Your task to perform on an android device: Open CNN.com Image 0: 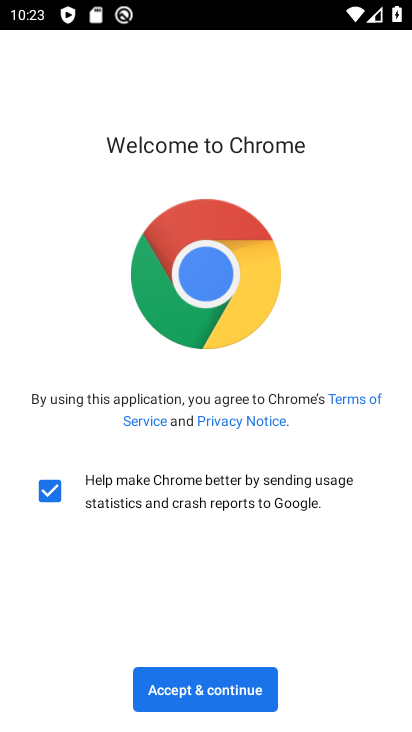
Step 0: click (191, 696)
Your task to perform on an android device: Open CNN.com Image 1: 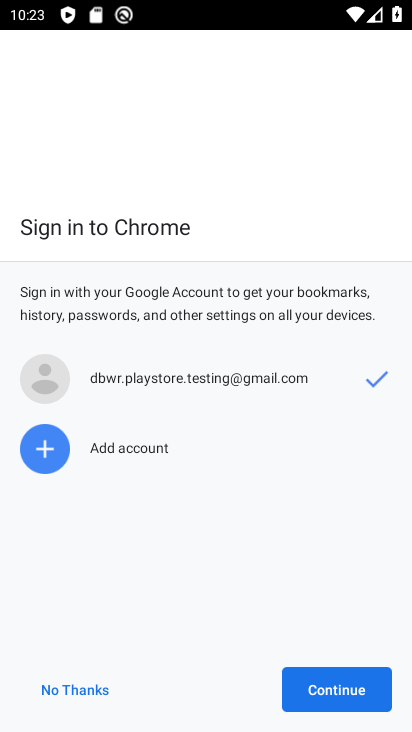
Step 1: click (328, 687)
Your task to perform on an android device: Open CNN.com Image 2: 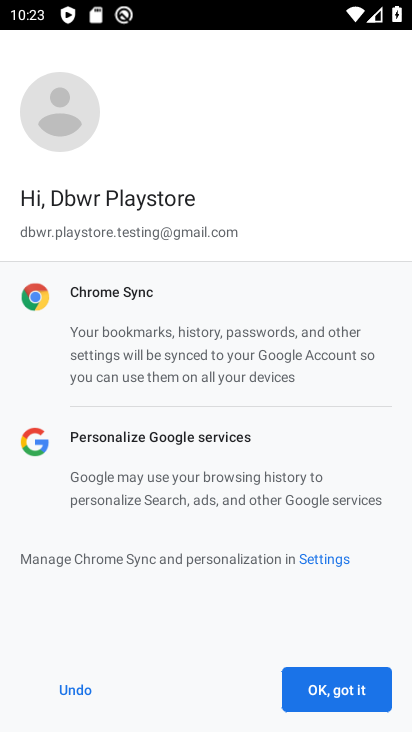
Step 2: click (331, 683)
Your task to perform on an android device: Open CNN.com Image 3: 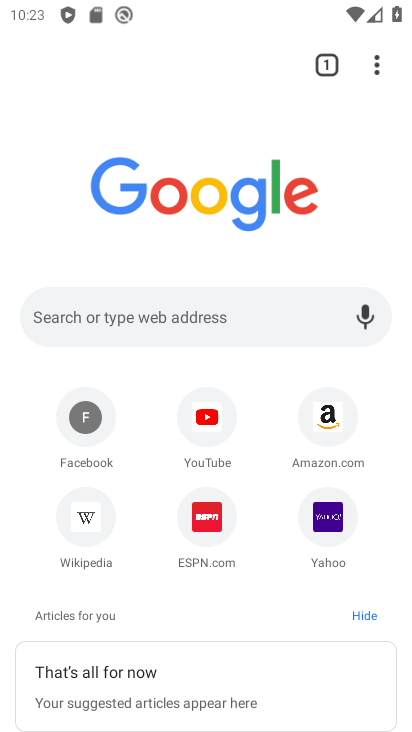
Step 3: click (229, 311)
Your task to perform on an android device: Open CNN.com Image 4: 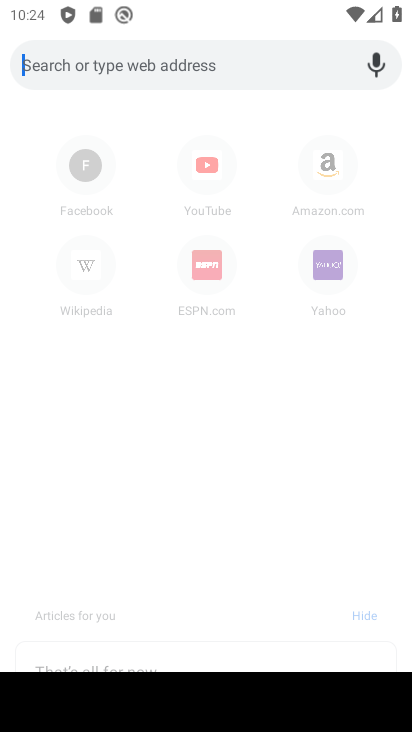
Step 4: type "CNN.com"
Your task to perform on an android device: Open CNN.com Image 5: 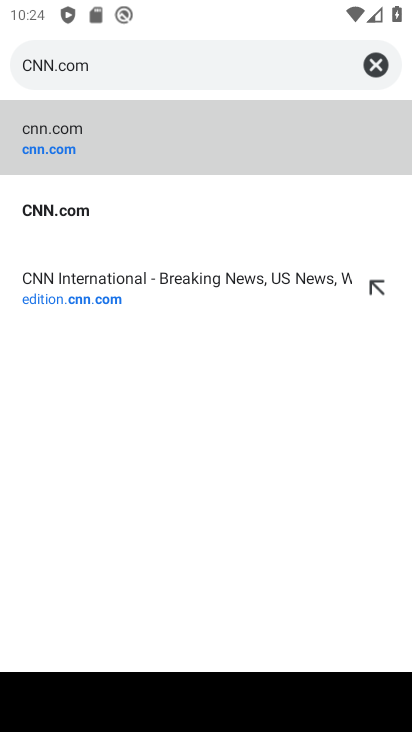
Step 5: click (113, 144)
Your task to perform on an android device: Open CNN.com Image 6: 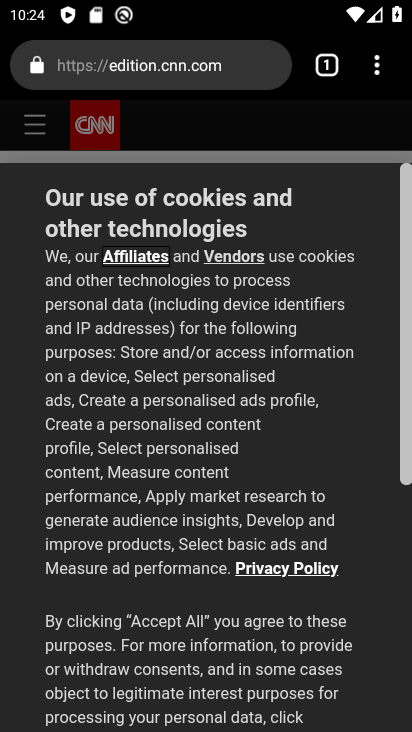
Step 6: task complete